Your task to perform on an android device: Go to network settings Image 0: 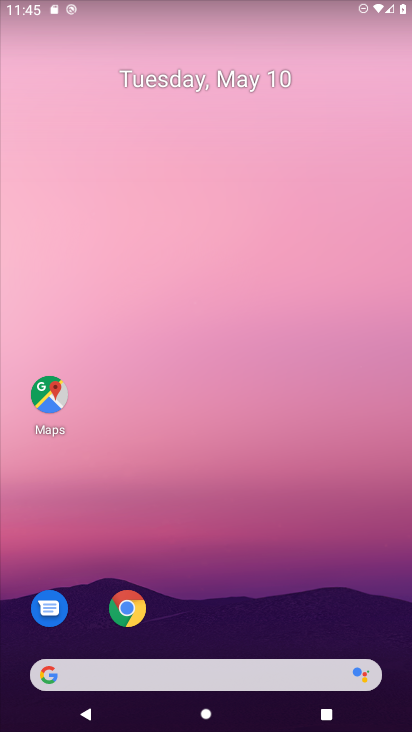
Step 0: drag from (302, 609) to (330, 50)
Your task to perform on an android device: Go to network settings Image 1: 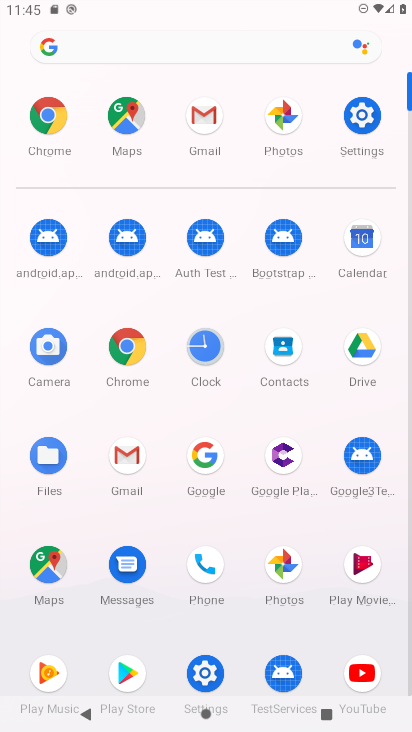
Step 1: click (352, 109)
Your task to perform on an android device: Go to network settings Image 2: 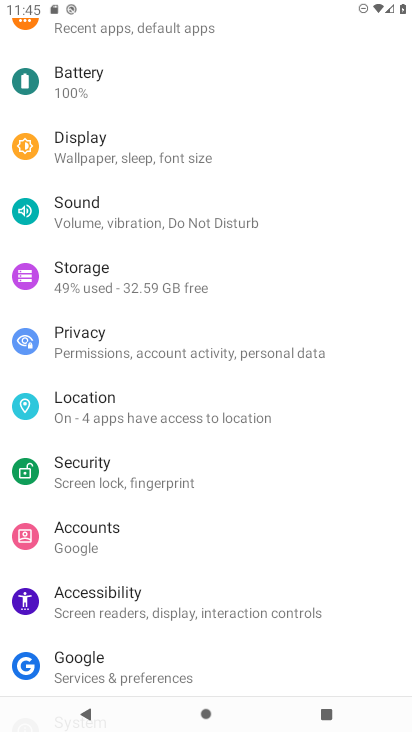
Step 2: drag from (225, 235) to (223, 576)
Your task to perform on an android device: Go to network settings Image 3: 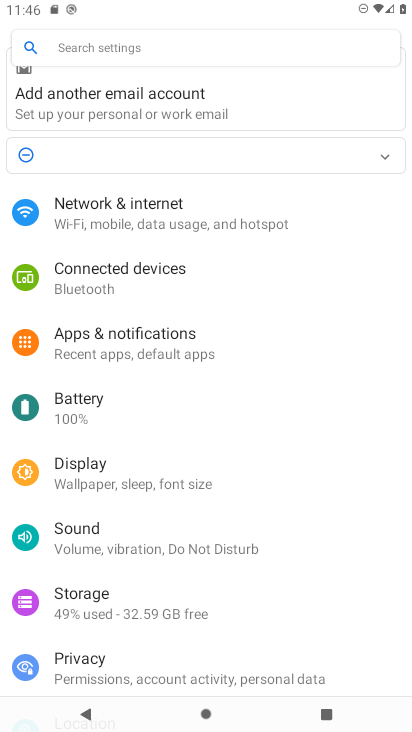
Step 3: click (188, 214)
Your task to perform on an android device: Go to network settings Image 4: 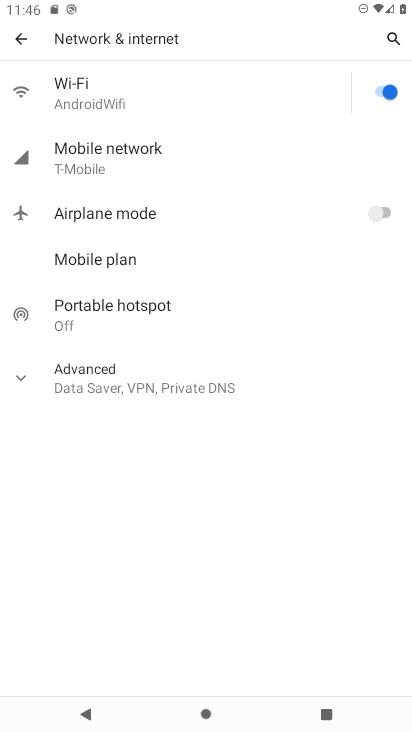
Step 4: task complete